Your task to perform on an android device: snooze an email in the gmail app Image 0: 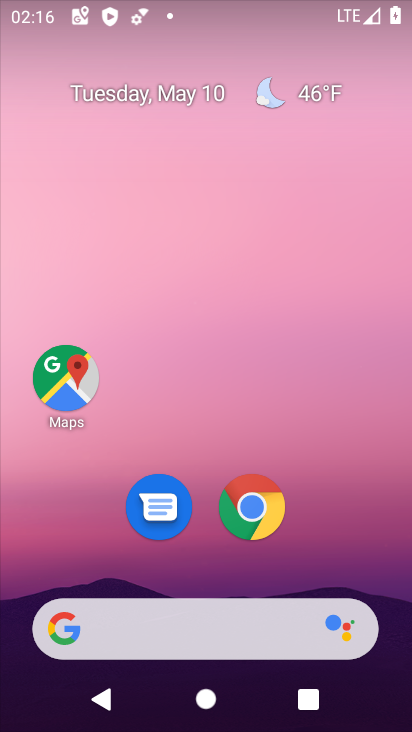
Step 0: drag from (262, 656) to (290, 271)
Your task to perform on an android device: snooze an email in the gmail app Image 1: 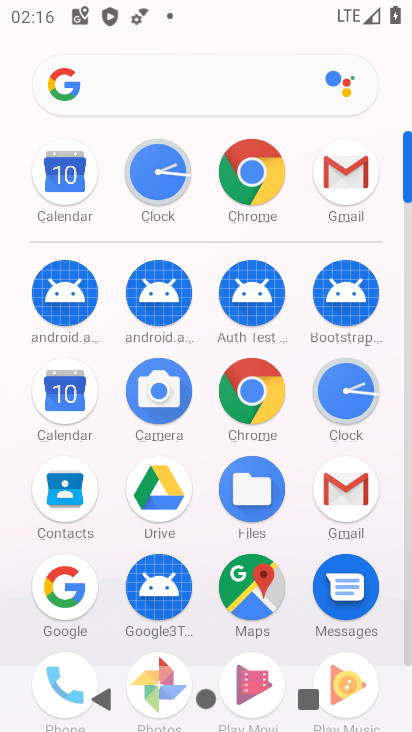
Step 1: click (340, 171)
Your task to perform on an android device: snooze an email in the gmail app Image 2: 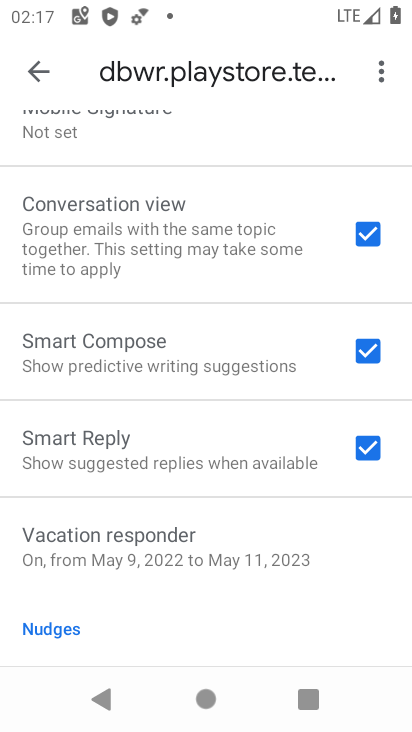
Step 2: click (47, 79)
Your task to perform on an android device: snooze an email in the gmail app Image 3: 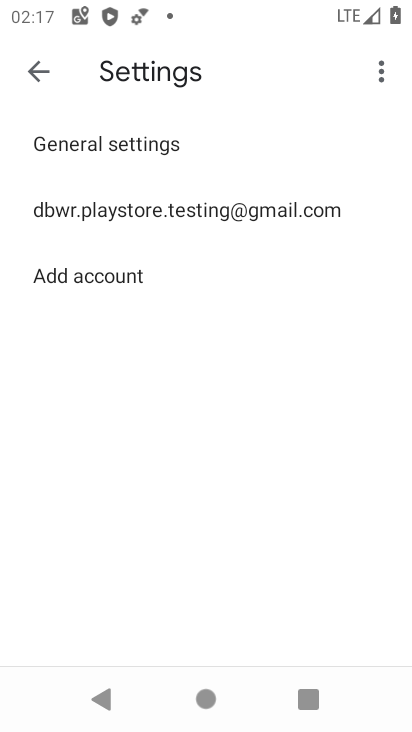
Step 3: click (47, 77)
Your task to perform on an android device: snooze an email in the gmail app Image 4: 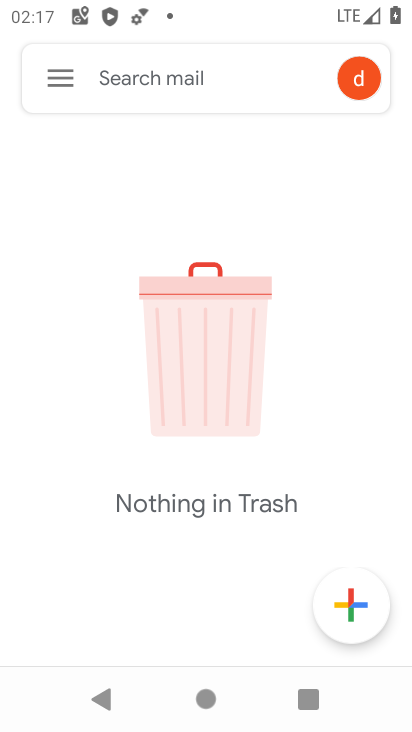
Step 4: click (59, 85)
Your task to perform on an android device: snooze an email in the gmail app Image 5: 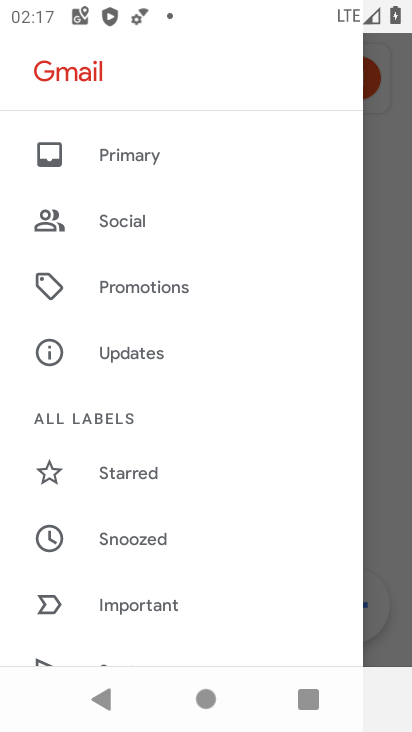
Step 5: click (143, 541)
Your task to perform on an android device: snooze an email in the gmail app Image 6: 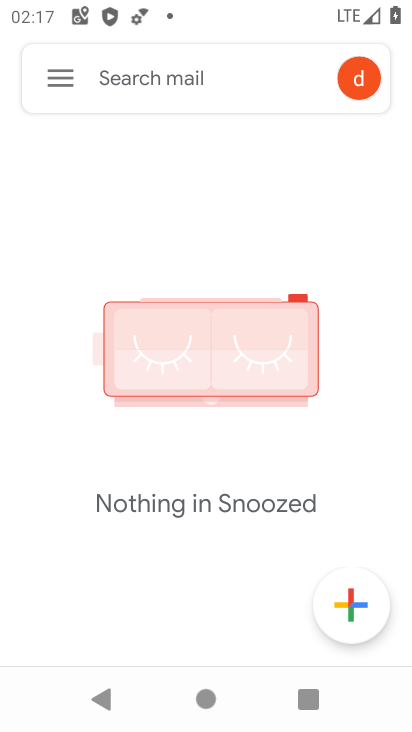
Step 6: task complete